Your task to perform on an android device: Go to settings Image 0: 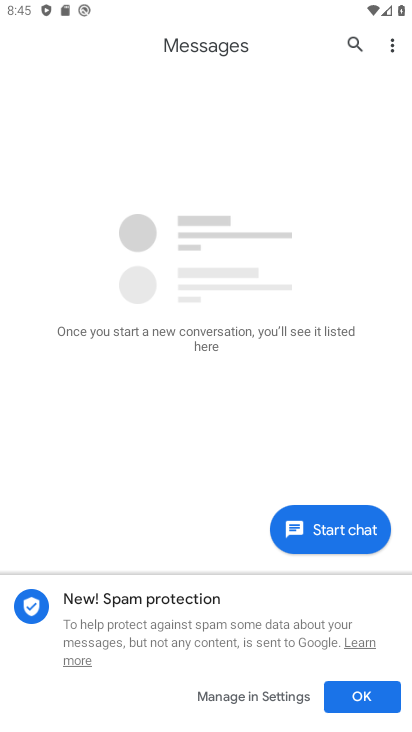
Step 0: press home button
Your task to perform on an android device: Go to settings Image 1: 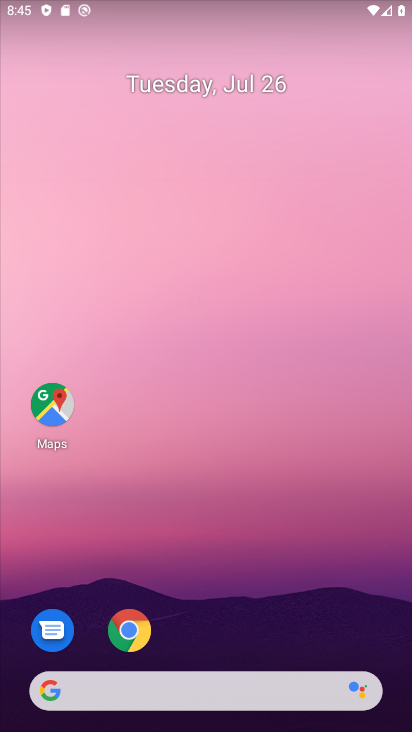
Step 1: drag from (200, 571) to (284, 5)
Your task to perform on an android device: Go to settings Image 2: 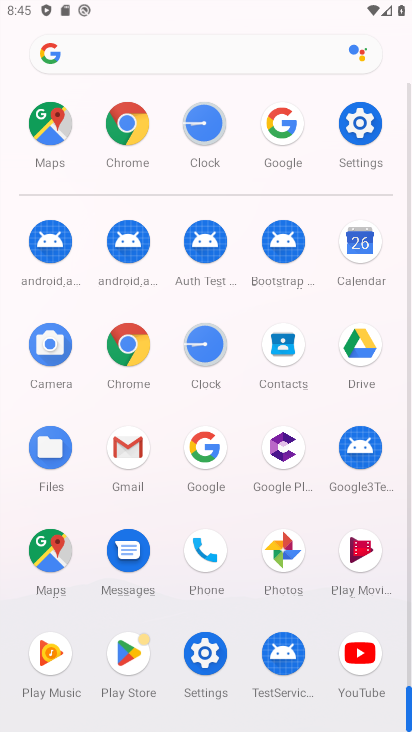
Step 2: click (366, 118)
Your task to perform on an android device: Go to settings Image 3: 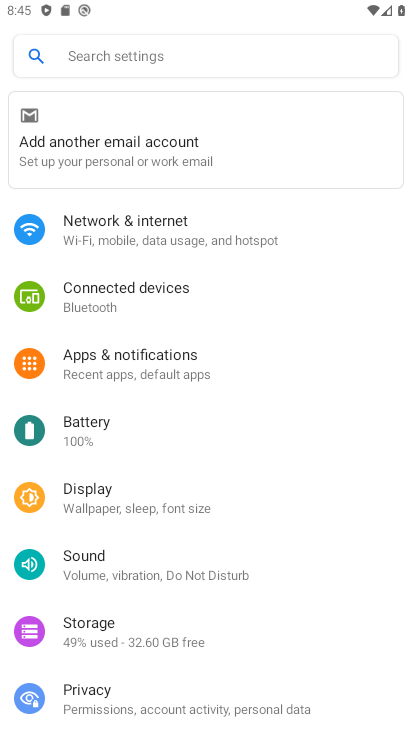
Step 3: task complete